Your task to perform on an android device: View the shopping cart on costco.com. Search for "usb-c to usb-a" on costco.com, select the first entry, add it to the cart, then select checkout. Image 0: 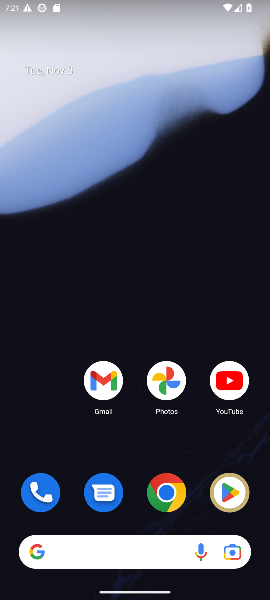
Step 0: click (170, 484)
Your task to perform on an android device: View the shopping cart on costco.com. Search for "usb-c to usb-a" on costco.com, select the first entry, add it to the cart, then select checkout. Image 1: 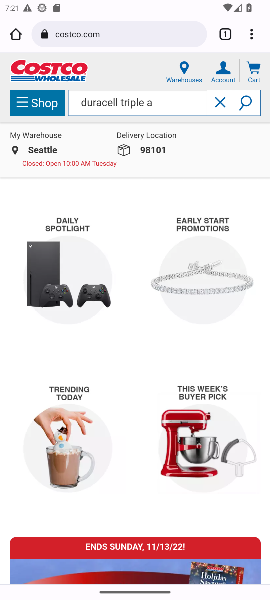
Step 1: click (253, 67)
Your task to perform on an android device: View the shopping cart on costco.com. Search for "usb-c to usb-a" on costco.com, select the first entry, add it to the cart, then select checkout. Image 2: 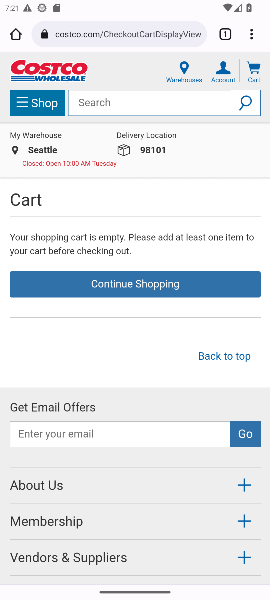
Step 2: click (197, 106)
Your task to perform on an android device: View the shopping cart on costco.com. Search for "usb-c to usb-a" on costco.com, select the first entry, add it to the cart, then select checkout. Image 3: 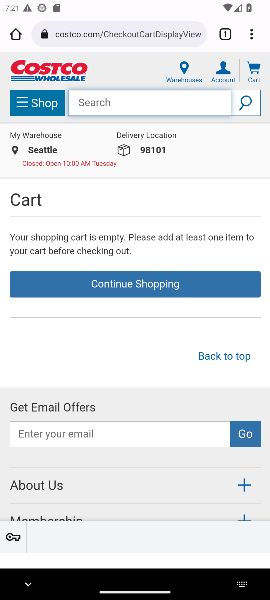
Step 3: type "usb-c to usb-a"
Your task to perform on an android device: View the shopping cart on costco.com. Search for "usb-c to usb-a" on costco.com, select the first entry, add it to the cart, then select checkout. Image 4: 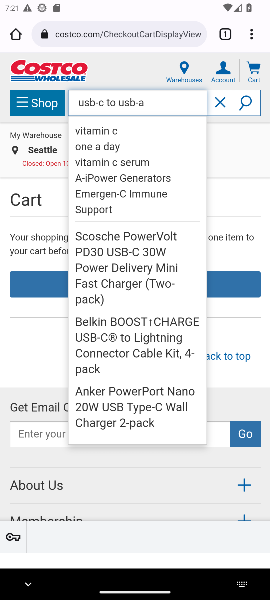
Step 4: click (248, 151)
Your task to perform on an android device: View the shopping cart on costco.com. Search for "usb-c to usb-a" on costco.com, select the first entry, add it to the cart, then select checkout. Image 5: 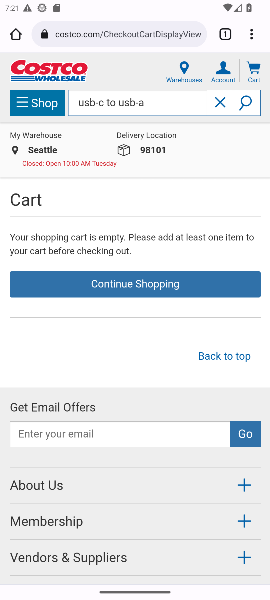
Step 5: click (247, 149)
Your task to perform on an android device: View the shopping cart on costco.com. Search for "usb-c to usb-a" on costco.com, select the first entry, add it to the cart, then select checkout. Image 6: 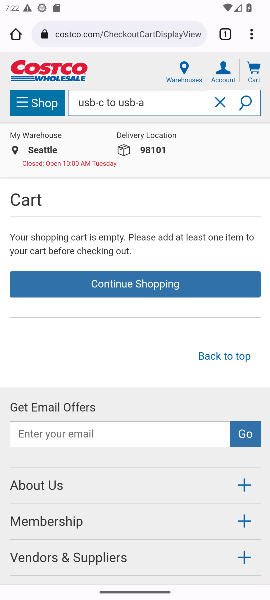
Step 6: task complete